Your task to perform on an android device: toggle notification dots Image 0: 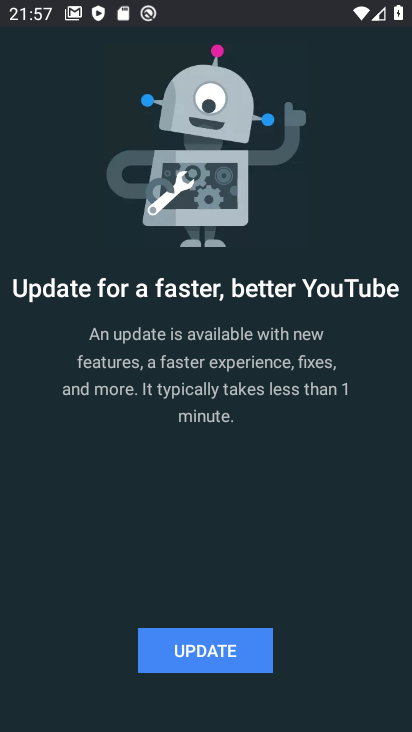
Step 0: press home button
Your task to perform on an android device: toggle notification dots Image 1: 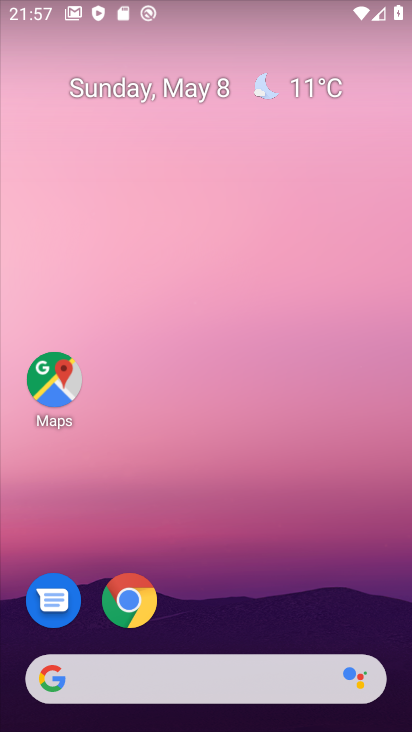
Step 1: drag from (202, 637) to (203, 113)
Your task to perform on an android device: toggle notification dots Image 2: 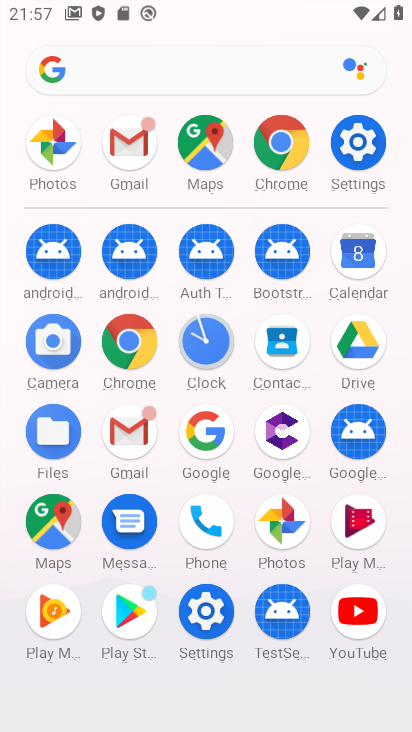
Step 2: click (330, 134)
Your task to perform on an android device: toggle notification dots Image 3: 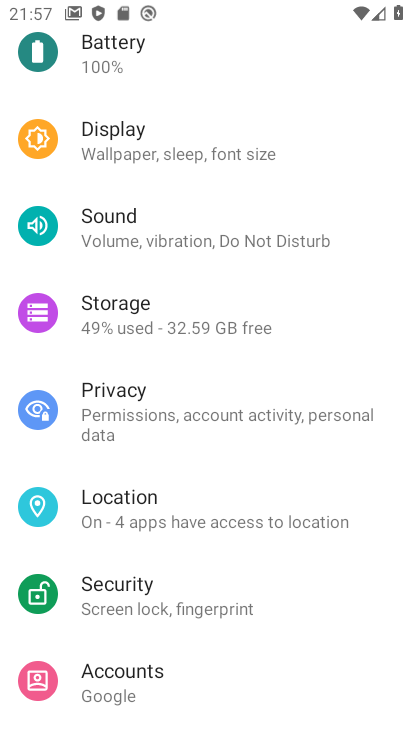
Step 3: drag from (166, 448) to (290, 92)
Your task to perform on an android device: toggle notification dots Image 4: 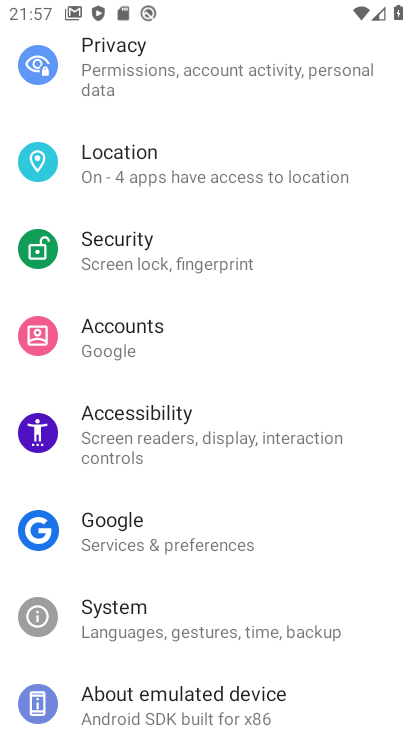
Step 4: drag from (191, 196) to (169, 710)
Your task to perform on an android device: toggle notification dots Image 5: 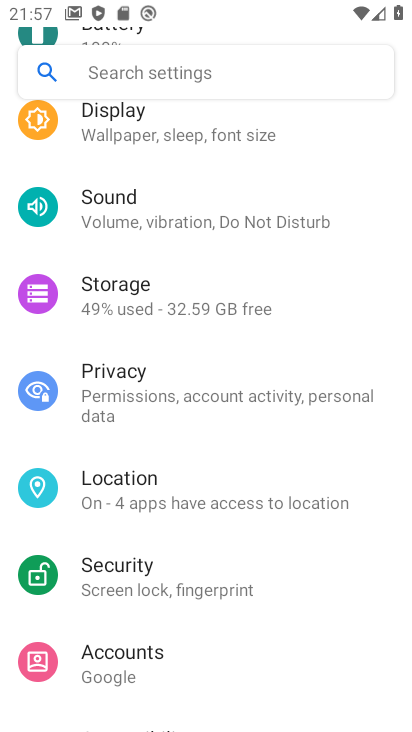
Step 5: drag from (166, 179) to (216, 678)
Your task to perform on an android device: toggle notification dots Image 6: 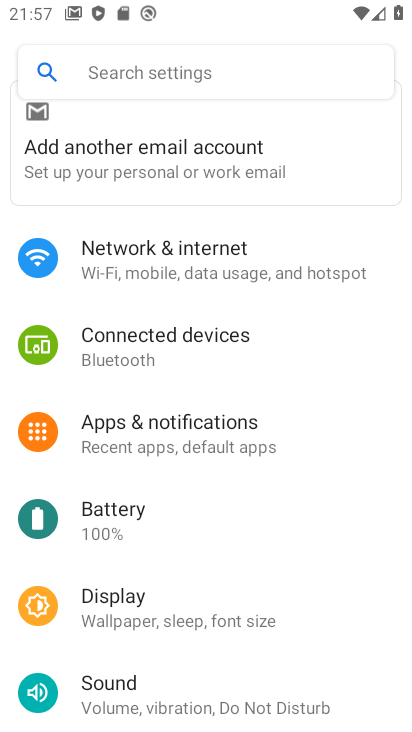
Step 6: click (186, 418)
Your task to perform on an android device: toggle notification dots Image 7: 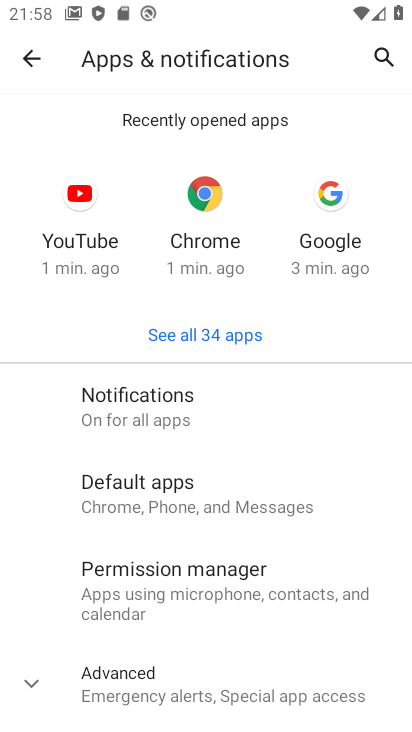
Step 7: task complete